Your task to perform on an android device: change alarm snooze length Image 0: 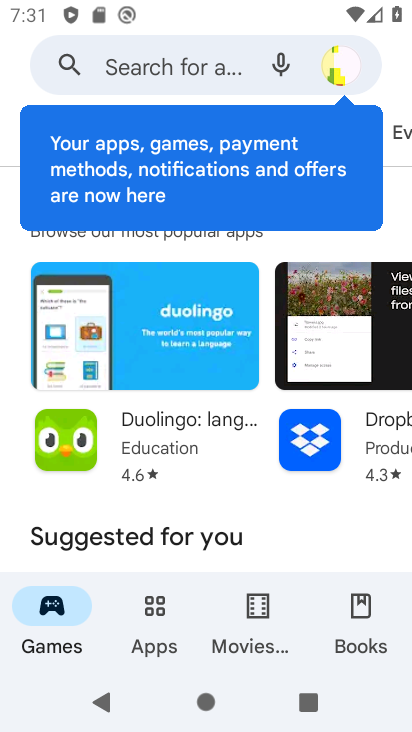
Step 0: press home button
Your task to perform on an android device: change alarm snooze length Image 1: 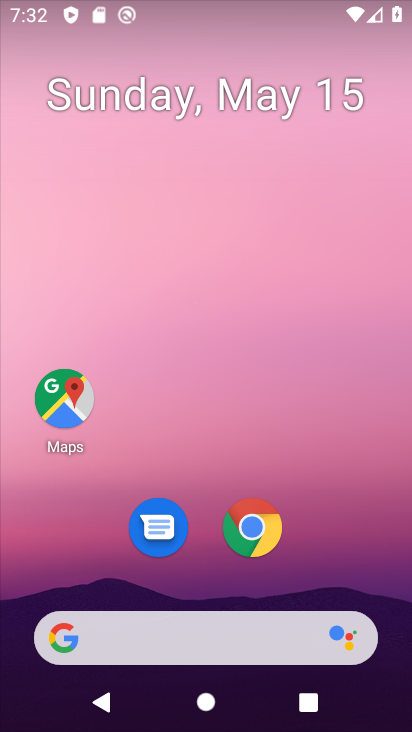
Step 1: drag from (129, 629) to (336, 135)
Your task to perform on an android device: change alarm snooze length Image 2: 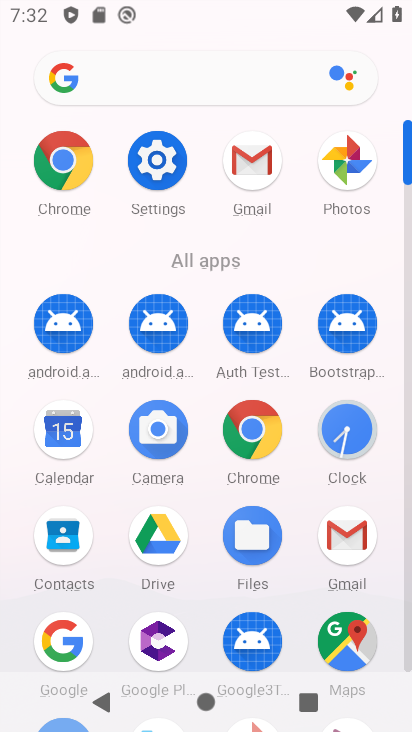
Step 2: click (356, 443)
Your task to perform on an android device: change alarm snooze length Image 3: 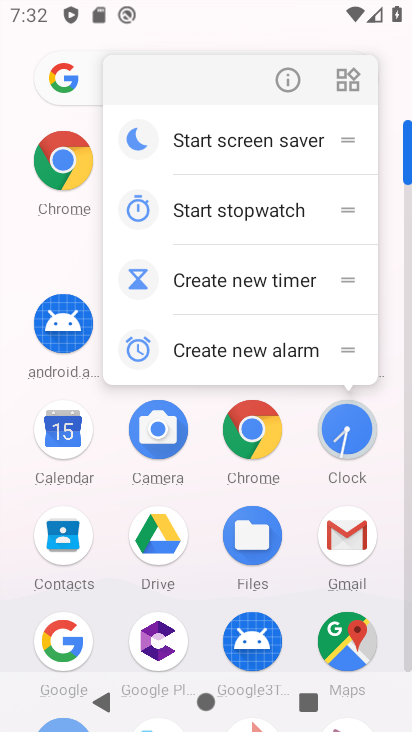
Step 3: click (344, 434)
Your task to perform on an android device: change alarm snooze length Image 4: 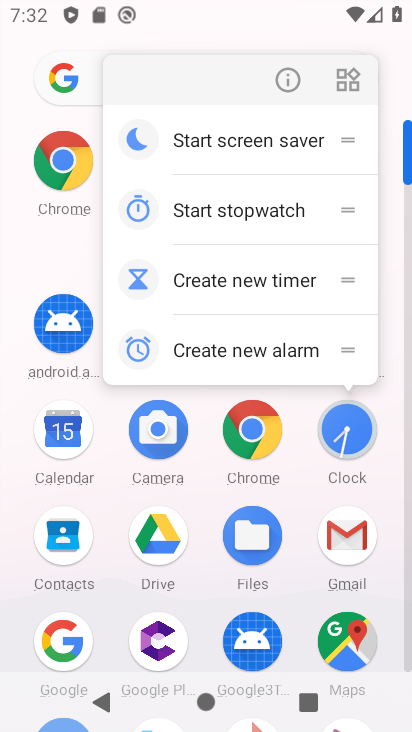
Step 4: click (338, 439)
Your task to perform on an android device: change alarm snooze length Image 5: 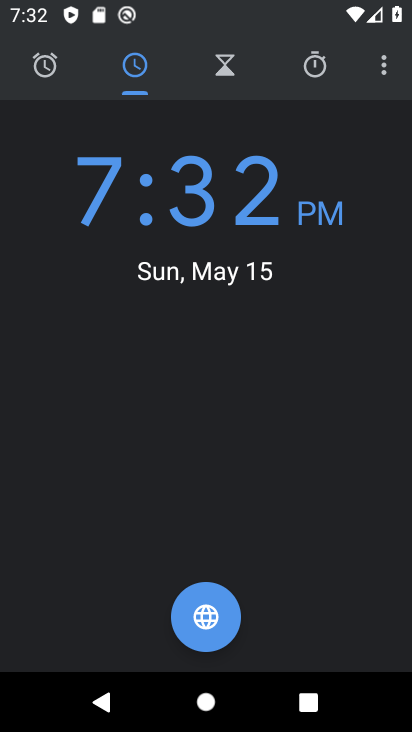
Step 5: click (384, 77)
Your task to perform on an android device: change alarm snooze length Image 6: 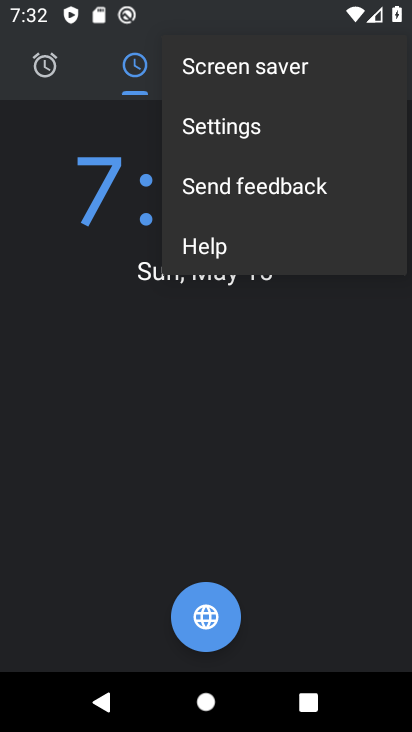
Step 6: click (216, 131)
Your task to perform on an android device: change alarm snooze length Image 7: 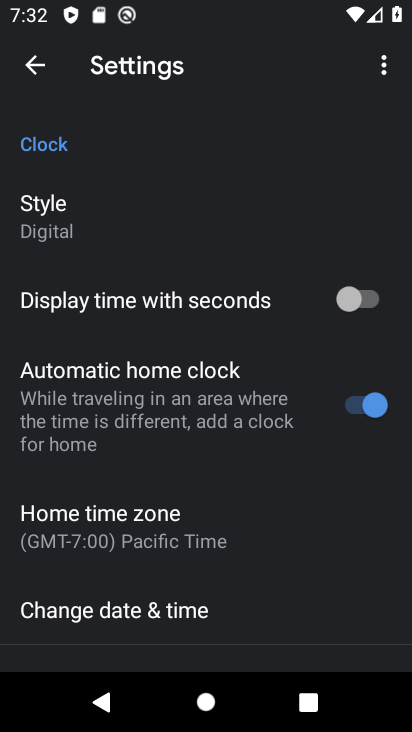
Step 7: drag from (222, 565) to (368, 165)
Your task to perform on an android device: change alarm snooze length Image 8: 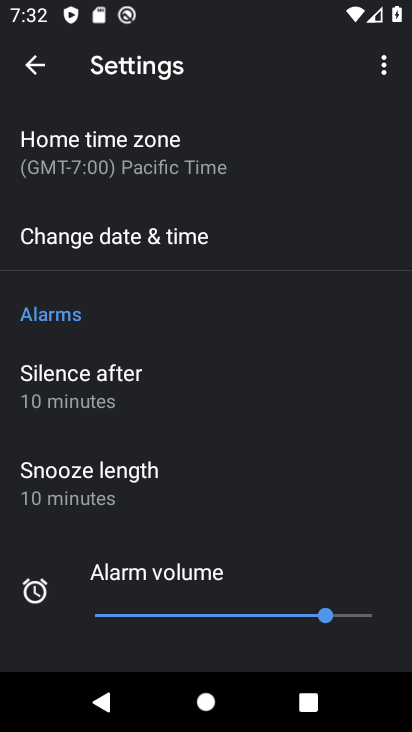
Step 8: click (87, 472)
Your task to perform on an android device: change alarm snooze length Image 9: 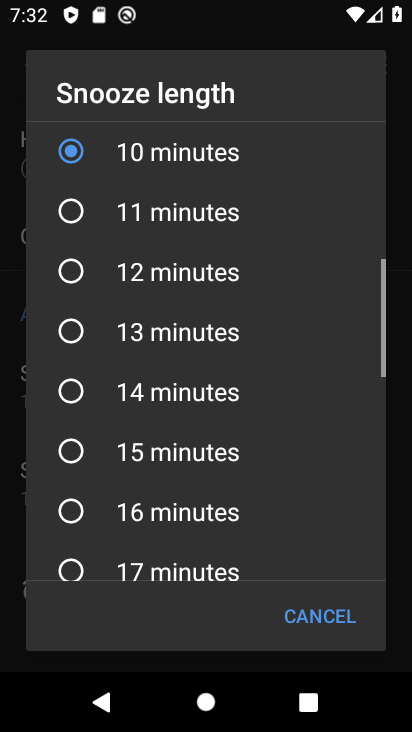
Step 9: click (64, 450)
Your task to perform on an android device: change alarm snooze length Image 10: 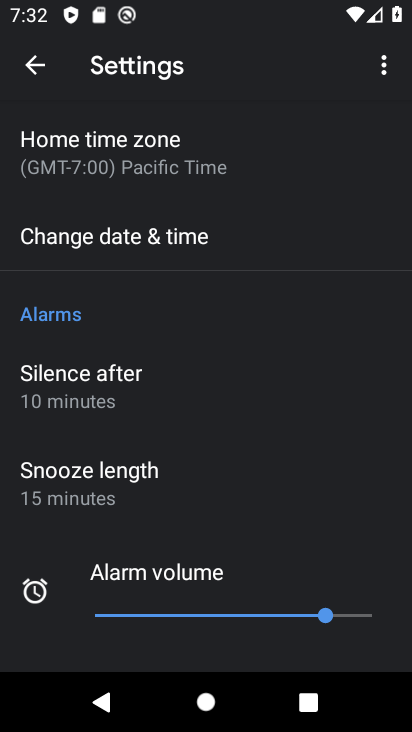
Step 10: task complete